Your task to perform on an android device: turn off notifications in google photos Image 0: 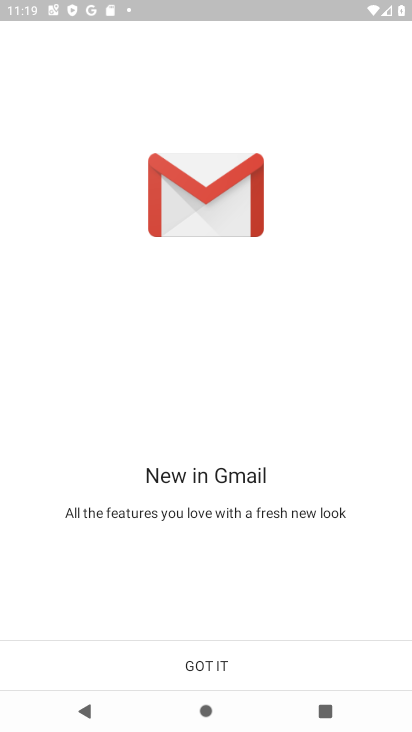
Step 0: press home button
Your task to perform on an android device: turn off notifications in google photos Image 1: 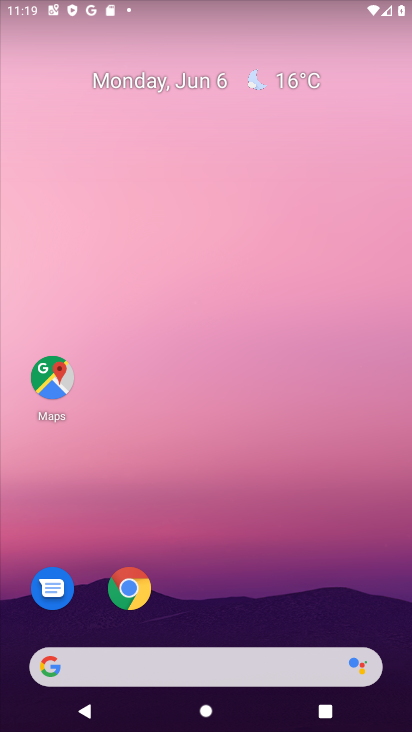
Step 1: drag from (201, 615) to (128, 110)
Your task to perform on an android device: turn off notifications in google photos Image 2: 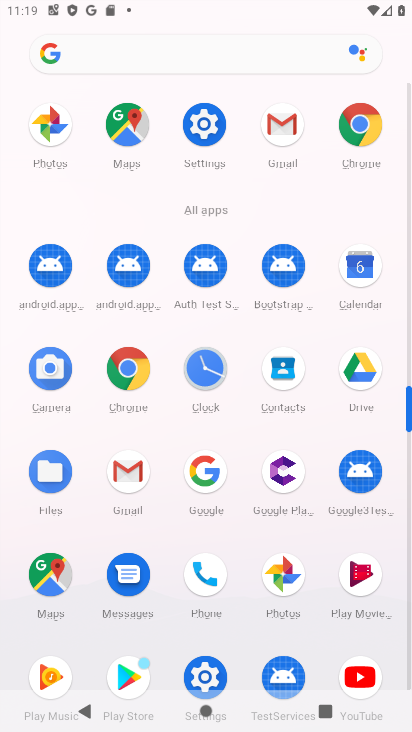
Step 2: click (276, 571)
Your task to perform on an android device: turn off notifications in google photos Image 3: 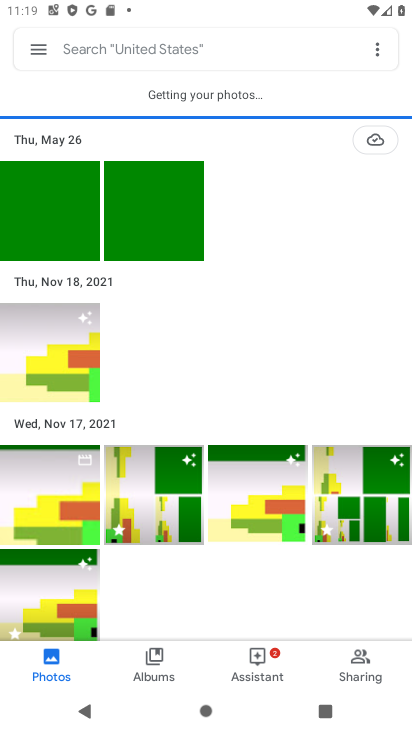
Step 3: click (372, 49)
Your task to perform on an android device: turn off notifications in google photos Image 4: 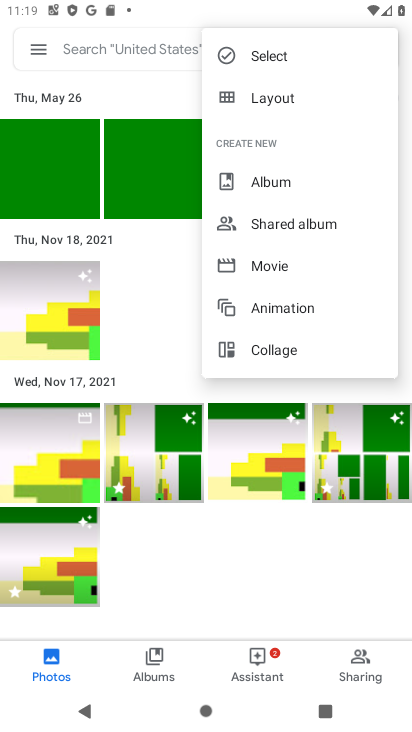
Step 4: click (39, 35)
Your task to perform on an android device: turn off notifications in google photos Image 5: 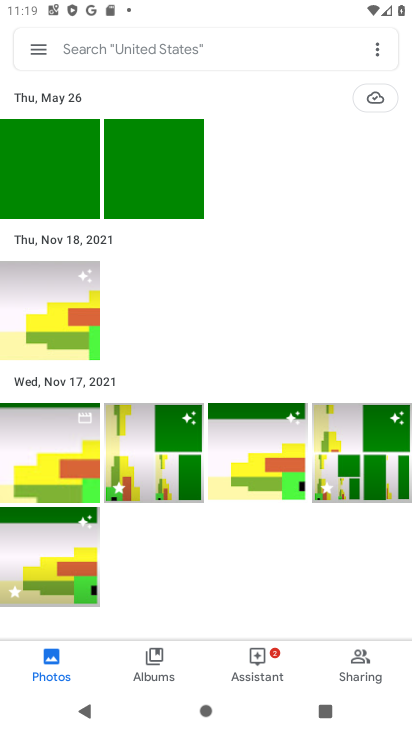
Step 5: click (44, 49)
Your task to perform on an android device: turn off notifications in google photos Image 6: 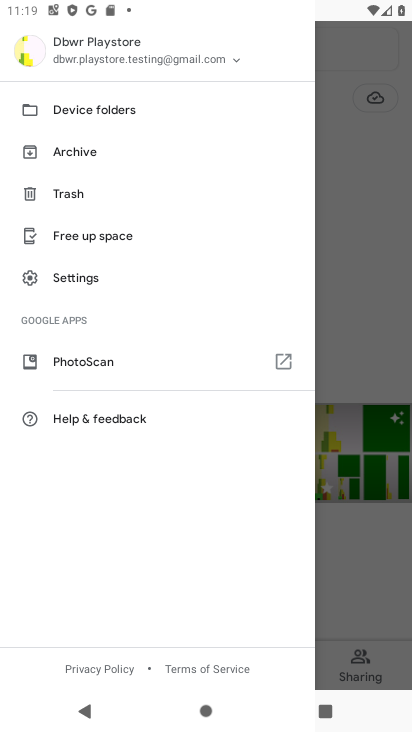
Step 6: click (56, 269)
Your task to perform on an android device: turn off notifications in google photos Image 7: 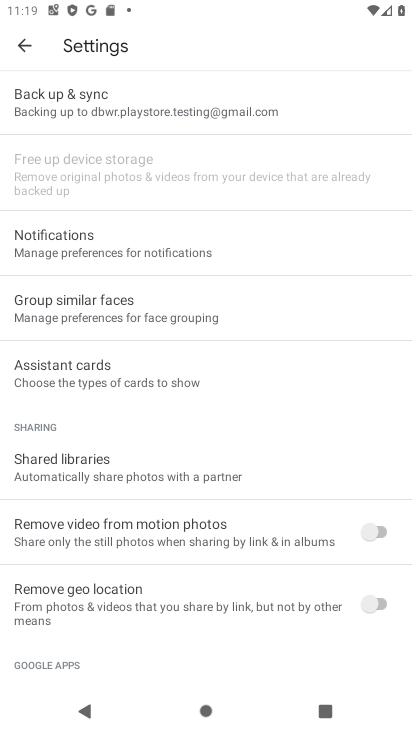
Step 7: click (69, 245)
Your task to perform on an android device: turn off notifications in google photos Image 8: 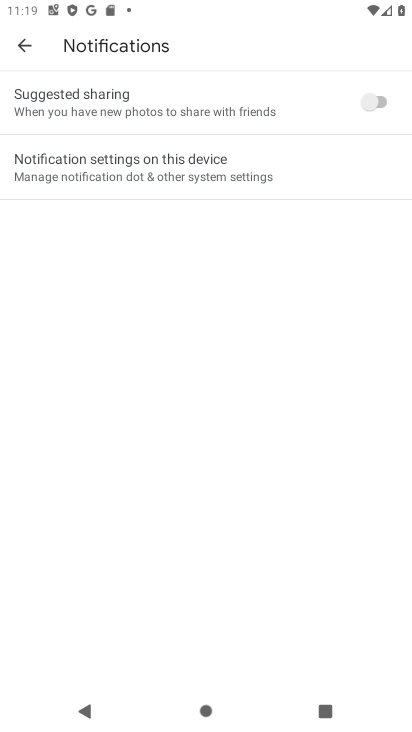
Step 8: task complete